Your task to perform on an android device: change the clock display to show seconds Image 0: 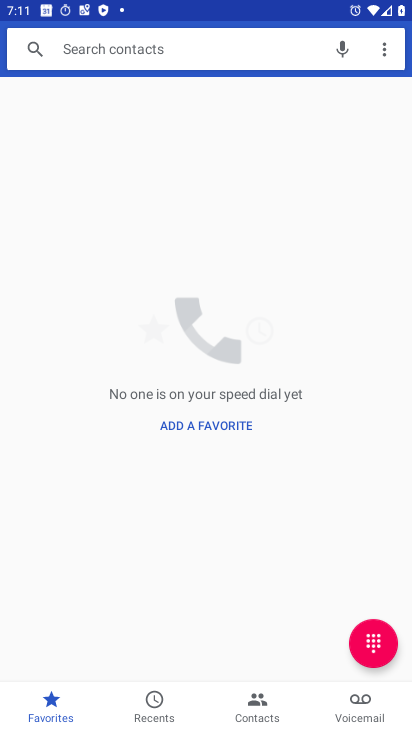
Step 0: drag from (363, 628) to (377, 257)
Your task to perform on an android device: change the clock display to show seconds Image 1: 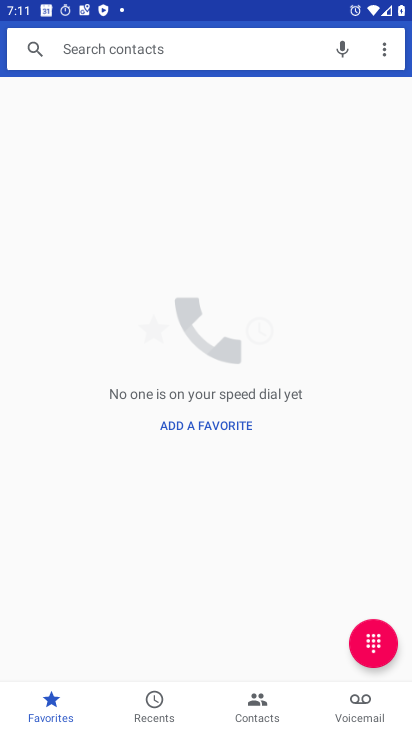
Step 1: press home button
Your task to perform on an android device: change the clock display to show seconds Image 2: 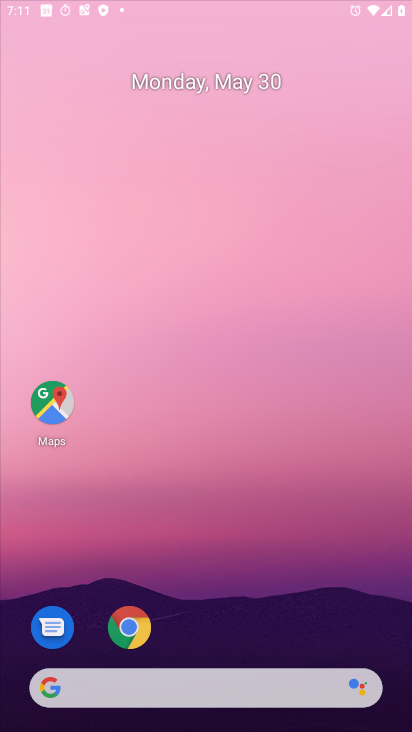
Step 2: drag from (340, 462) to (220, 30)
Your task to perform on an android device: change the clock display to show seconds Image 3: 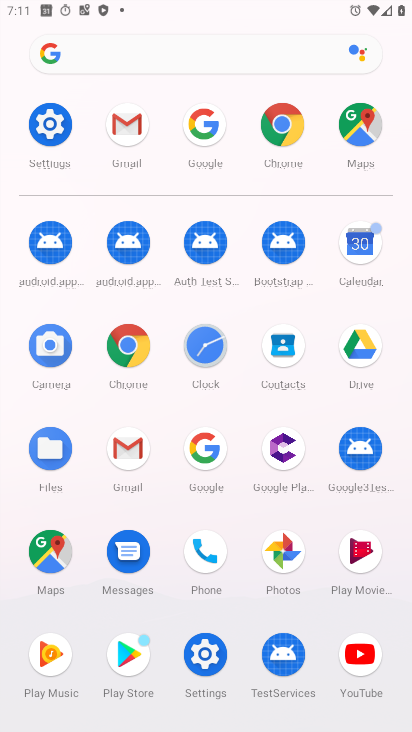
Step 3: click (208, 350)
Your task to perform on an android device: change the clock display to show seconds Image 4: 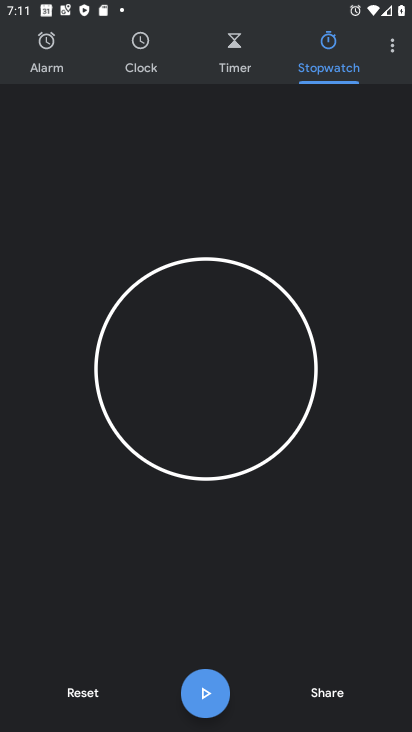
Step 4: click (394, 53)
Your task to perform on an android device: change the clock display to show seconds Image 5: 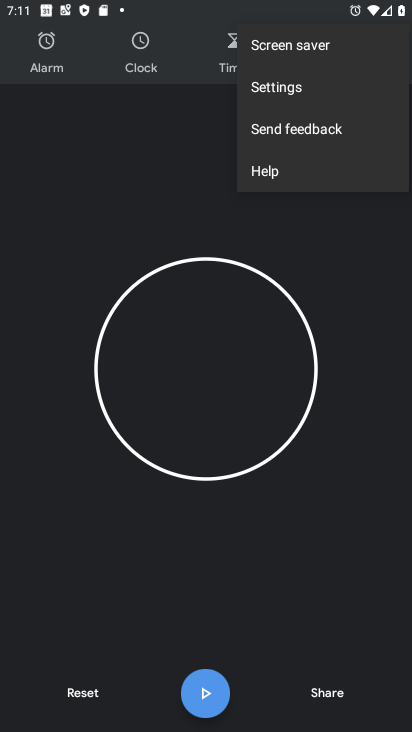
Step 5: click (292, 94)
Your task to perform on an android device: change the clock display to show seconds Image 6: 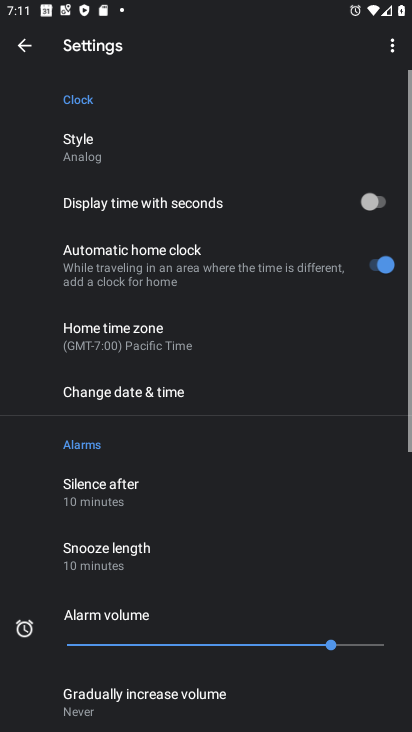
Step 6: click (407, 206)
Your task to perform on an android device: change the clock display to show seconds Image 7: 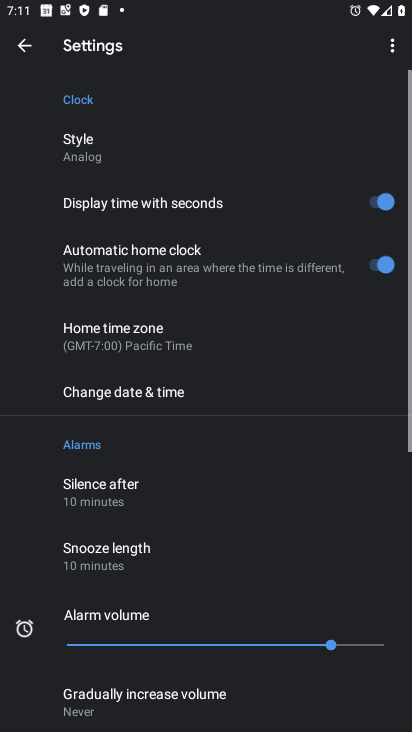
Step 7: task complete